Your task to perform on an android device: toggle pop-ups in chrome Image 0: 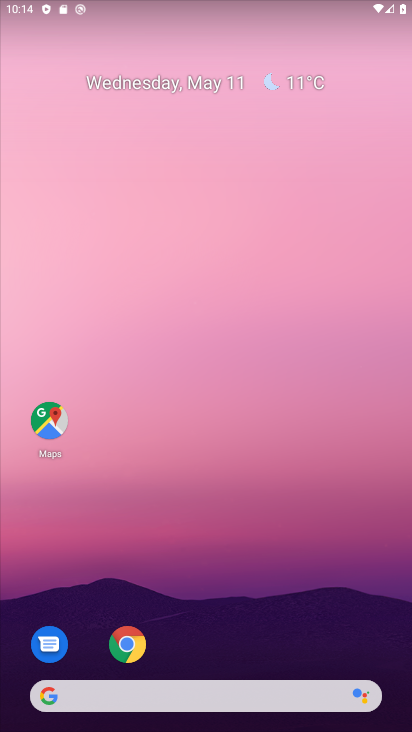
Step 0: click (139, 651)
Your task to perform on an android device: toggle pop-ups in chrome Image 1: 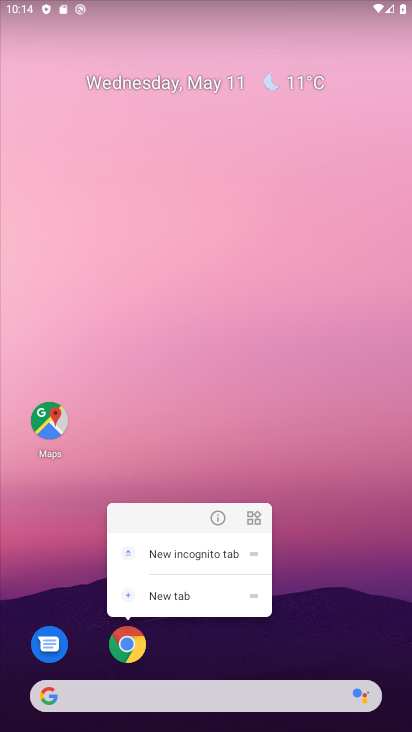
Step 1: click (124, 652)
Your task to perform on an android device: toggle pop-ups in chrome Image 2: 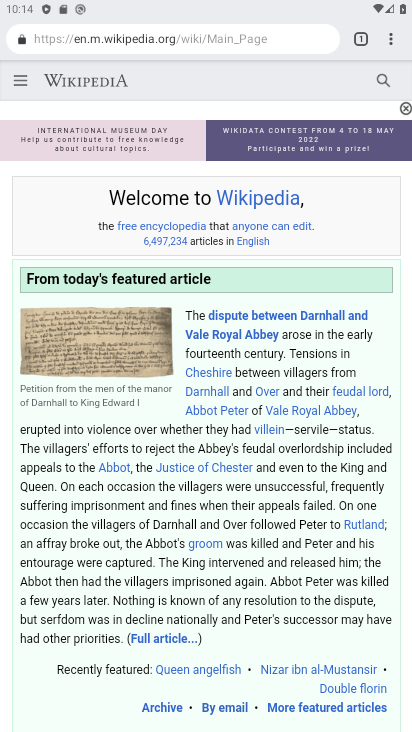
Step 2: click (391, 40)
Your task to perform on an android device: toggle pop-ups in chrome Image 3: 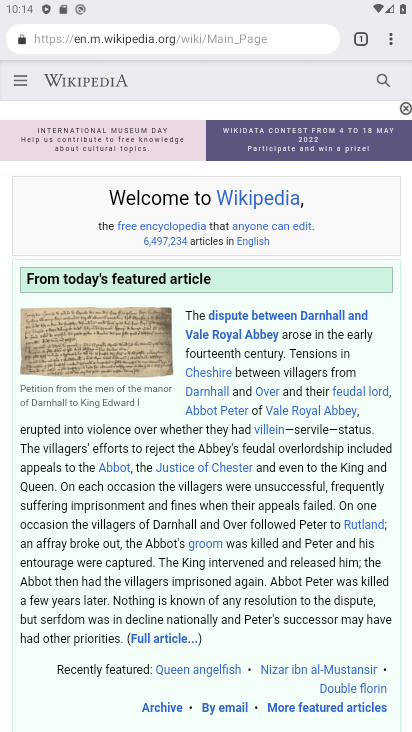
Step 3: click (391, 39)
Your task to perform on an android device: toggle pop-ups in chrome Image 4: 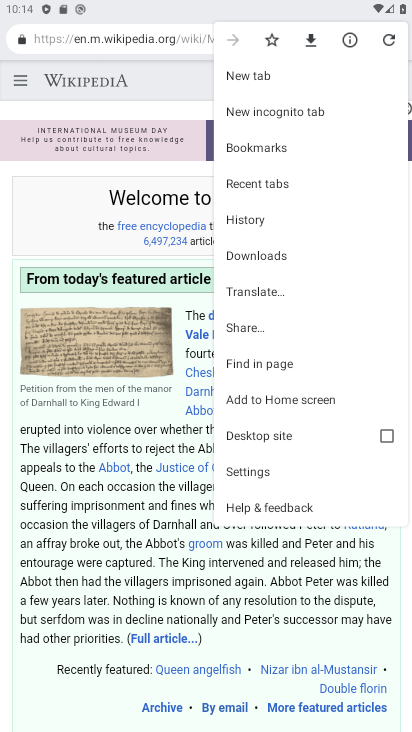
Step 4: click (245, 477)
Your task to perform on an android device: toggle pop-ups in chrome Image 5: 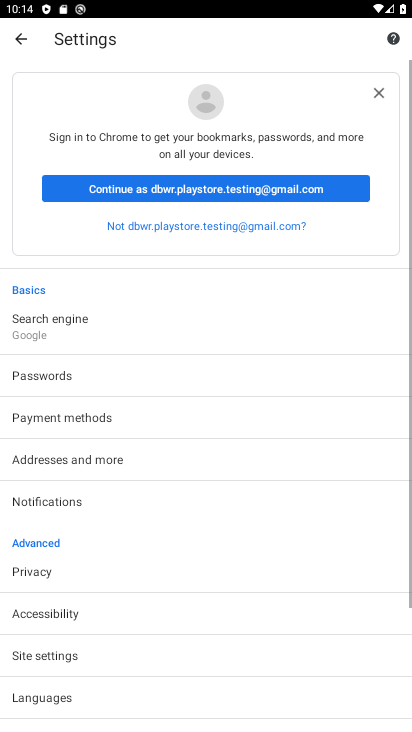
Step 5: drag from (102, 634) to (128, 293)
Your task to perform on an android device: toggle pop-ups in chrome Image 6: 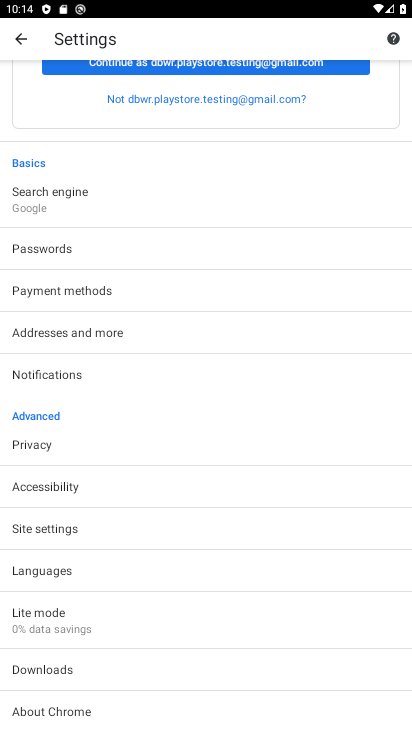
Step 6: click (77, 530)
Your task to perform on an android device: toggle pop-ups in chrome Image 7: 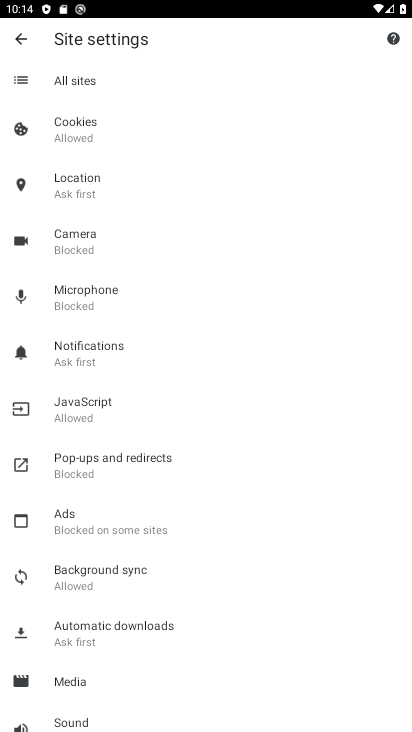
Step 7: click (92, 463)
Your task to perform on an android device: toggle pop-ups in chrome Image 8: 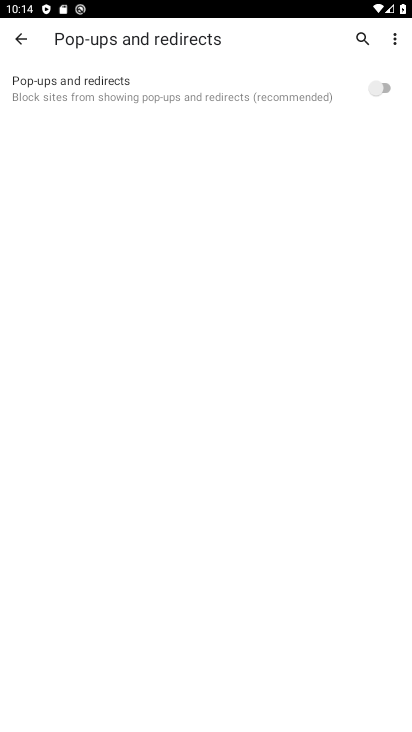
Step 8: click (382, 80)
Your task to perform on an android device: toggle pop-ups in chrome Image 9: 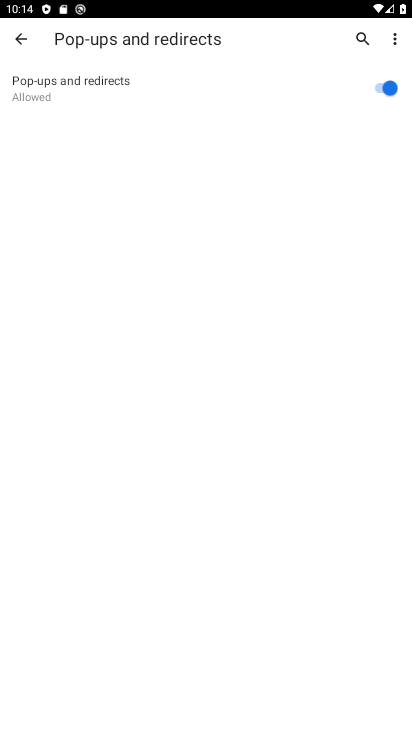
Step 9: task complete